Your task to perform on an android device: Add "beats solo 3" to the cart on target.com, then select checkout. Image 0: 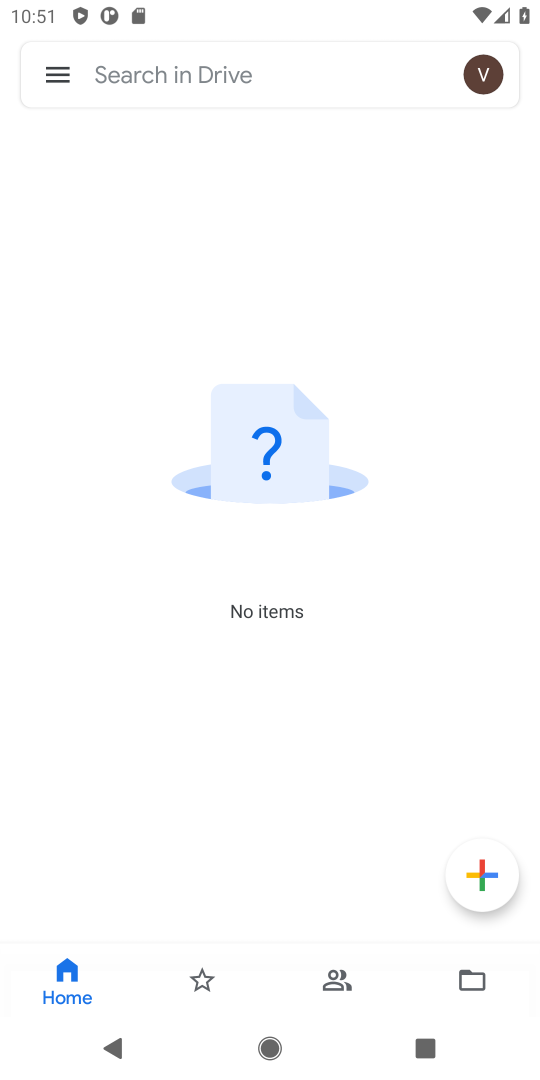
Step 0: press home button
Your task to perform on an android device: Add "beats solo 3" to the cart on target.com, then select checkout. Image 1: 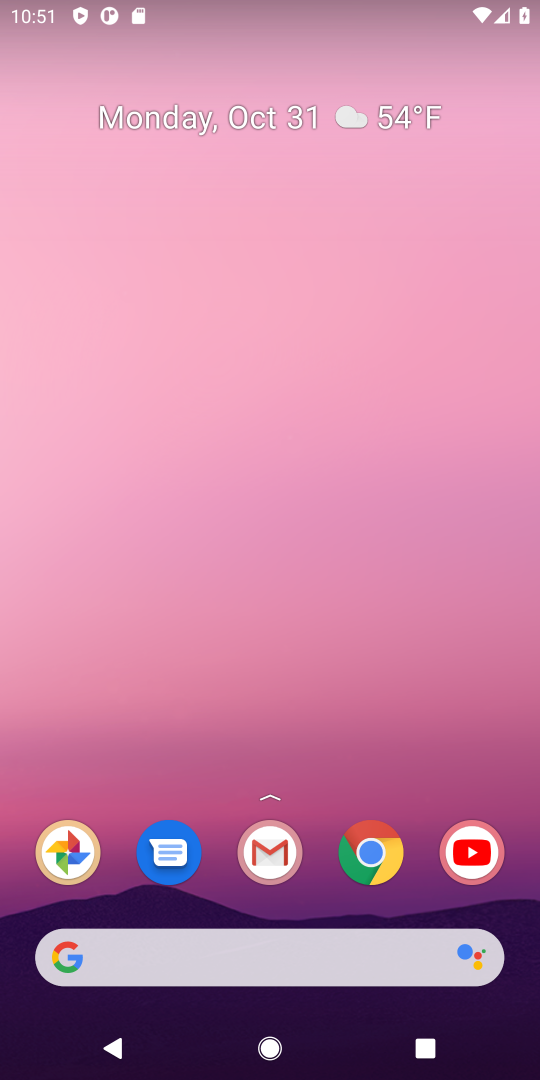
Step 1: click (387, 860)
Your task to perform on an android device: Add "beats solo 3" to the cart on target.com, then select checkout. Image 2: 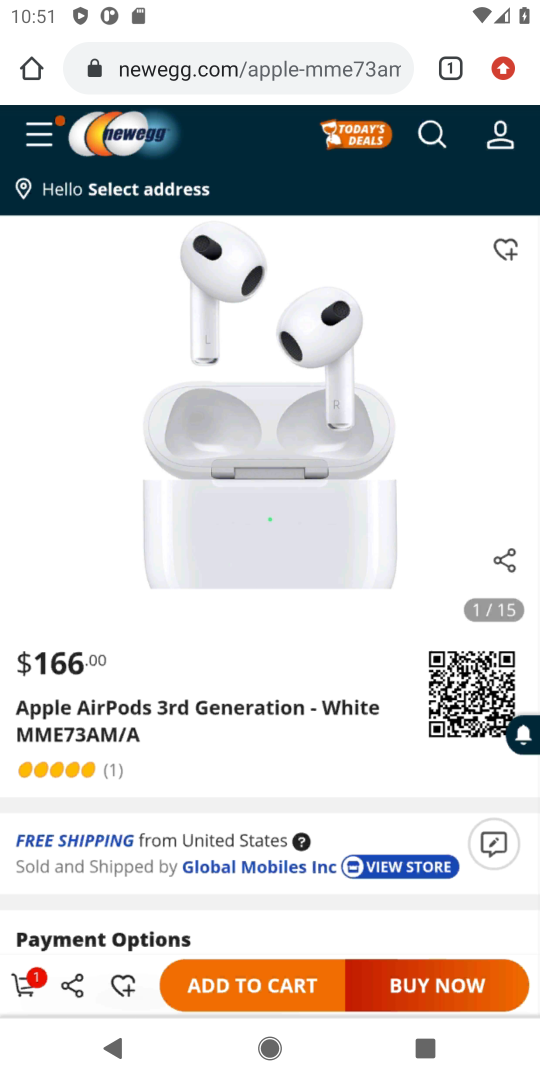
Step 2: click (264, 47)
Your task to perform on an android device: Add "beats solo 3" to the cart on target.com, then select checkout. Image 3: 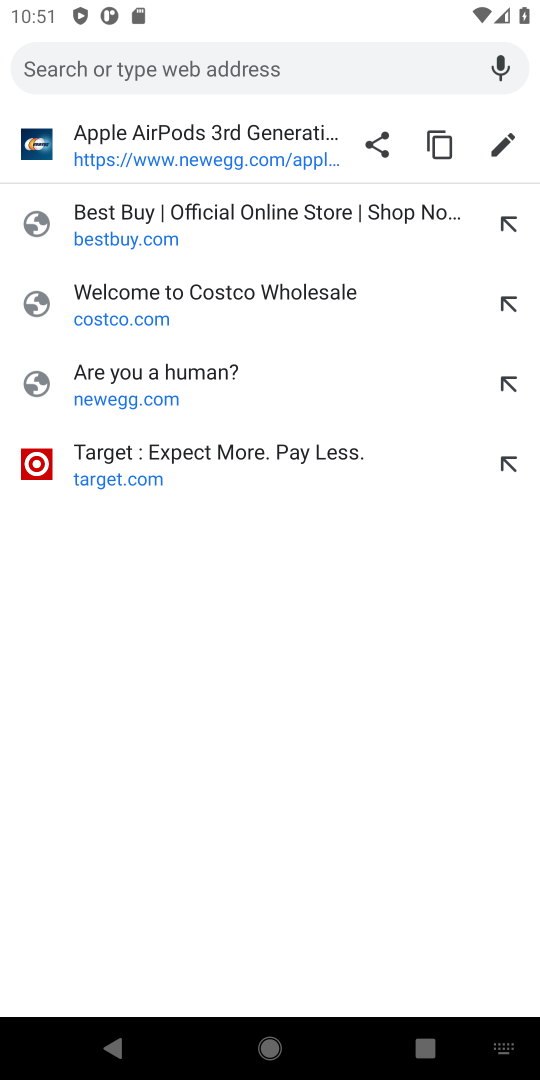
Step 3: type "target.com"
Your task to perform on an android device: Add "beats solo 3" to the cart on target.com, then select checkout. Image 4: 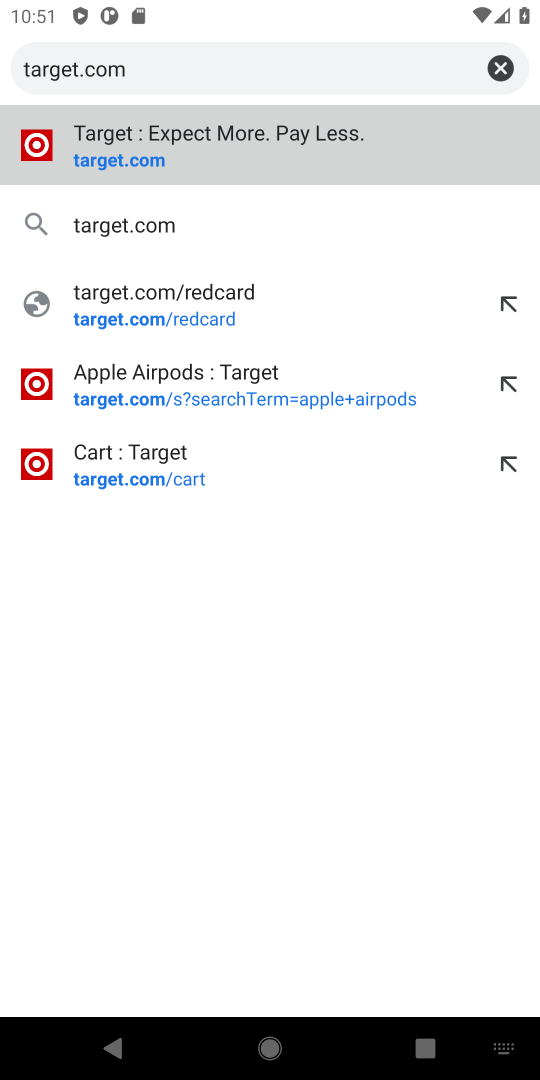
Step 4: type ""
Your task to perform on an android device: Add "beats solo 3" to the cart on target.com, then select checkout. Image 5: 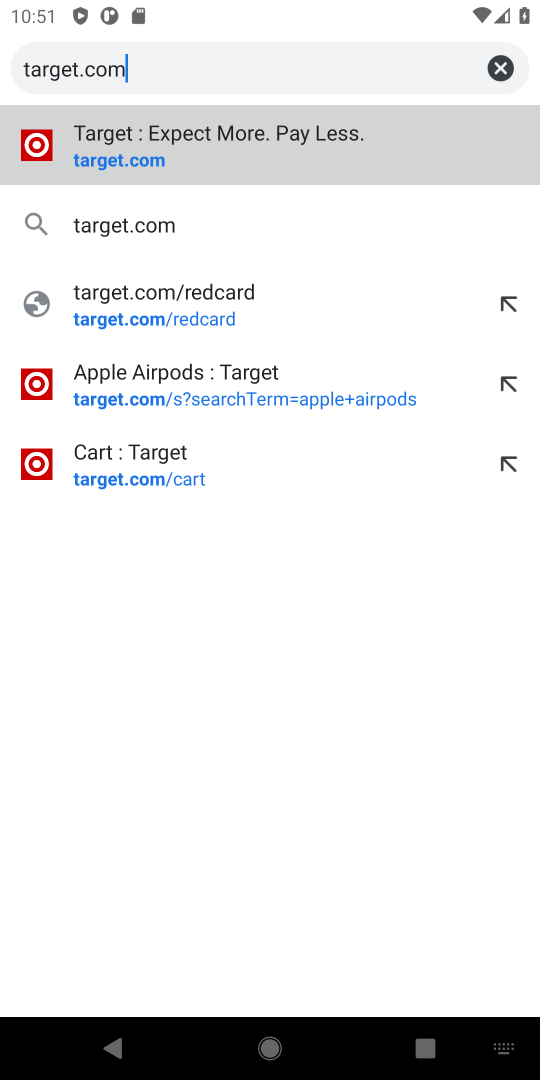
Step 5: press enter
Your task to perform on an android device: Add "beats solo 3" to the cart on target.com, then select checkout. Image 6: 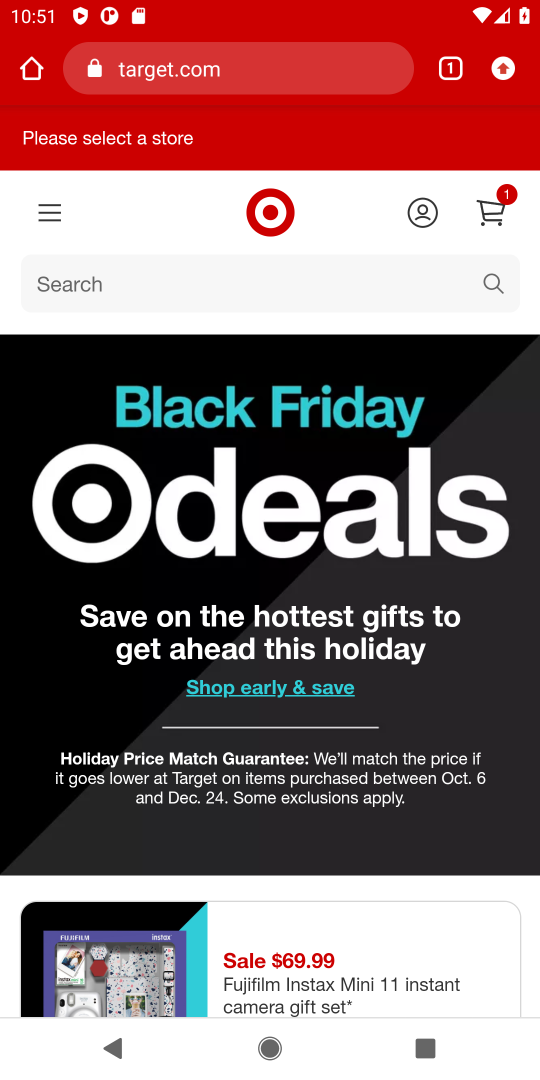
Step 6: click (230, 289)
Your task to perform on an android device: Add "beats solo 3" to the cart on target.com, then select checkout. Image 7: 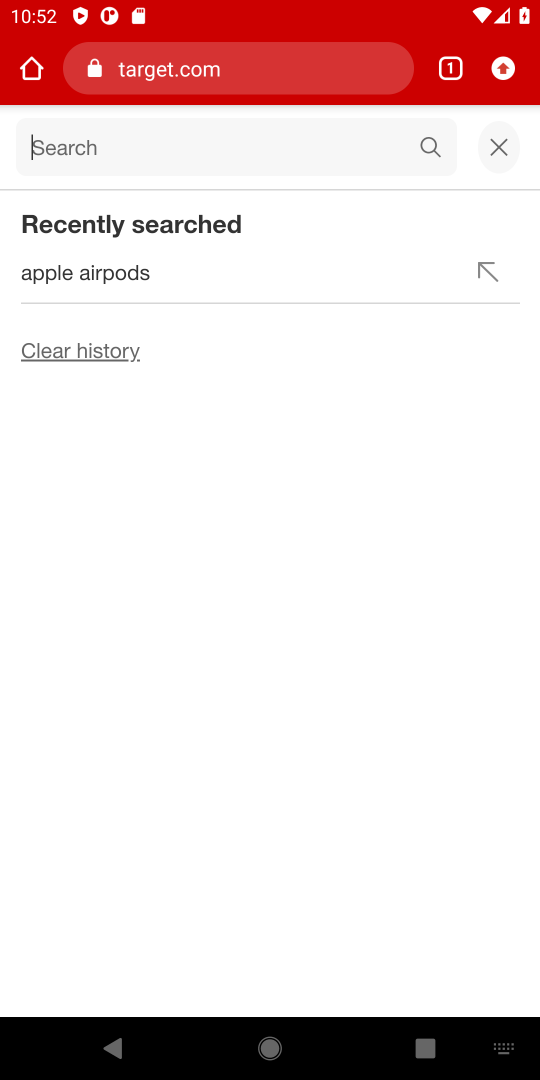
Step 7: type "beats solo 3"
Your task to perform on an android device: Add "beats solo 3" to the cart on target.com, then select checkout. Image 8: 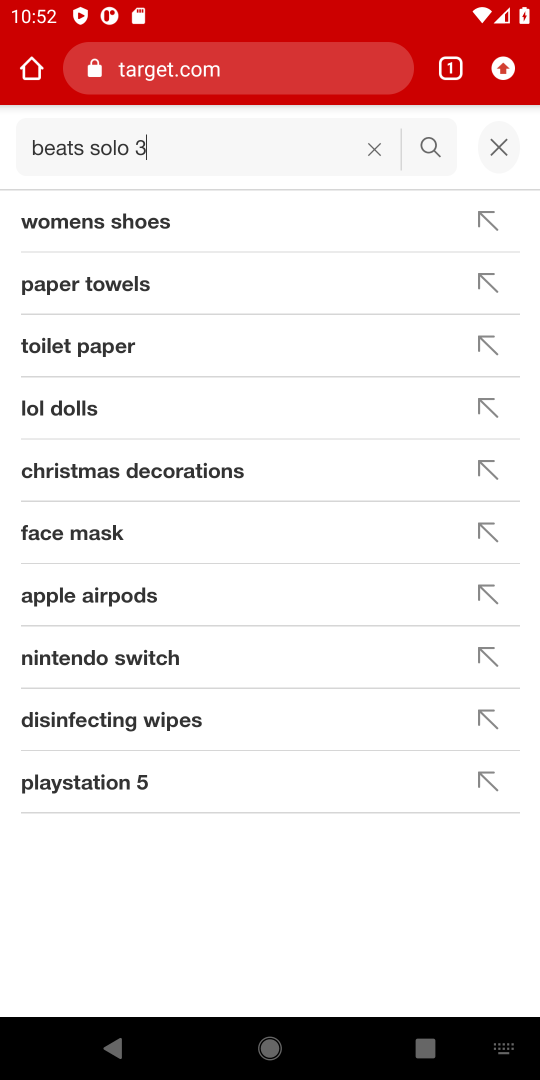
Step 8: type ""
Your task to perform on an android device: Add "beats solo 3" to the cart on target.com, then select checkout. Image 9: 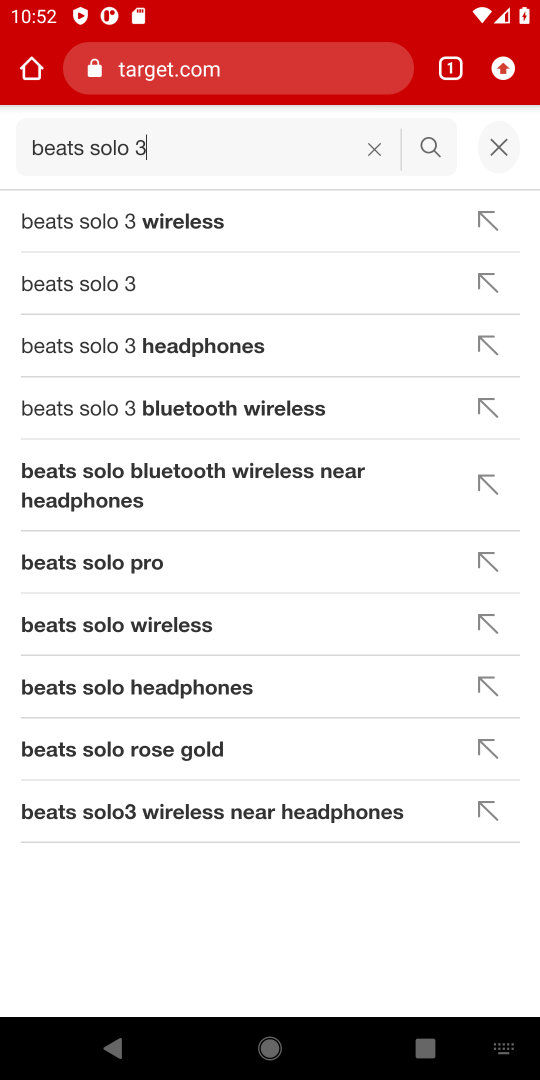
Step 9: press enter
Your task to perform on an android device: Add "beats solo 3" to the cart on target.com, then select checkout. Image 10: 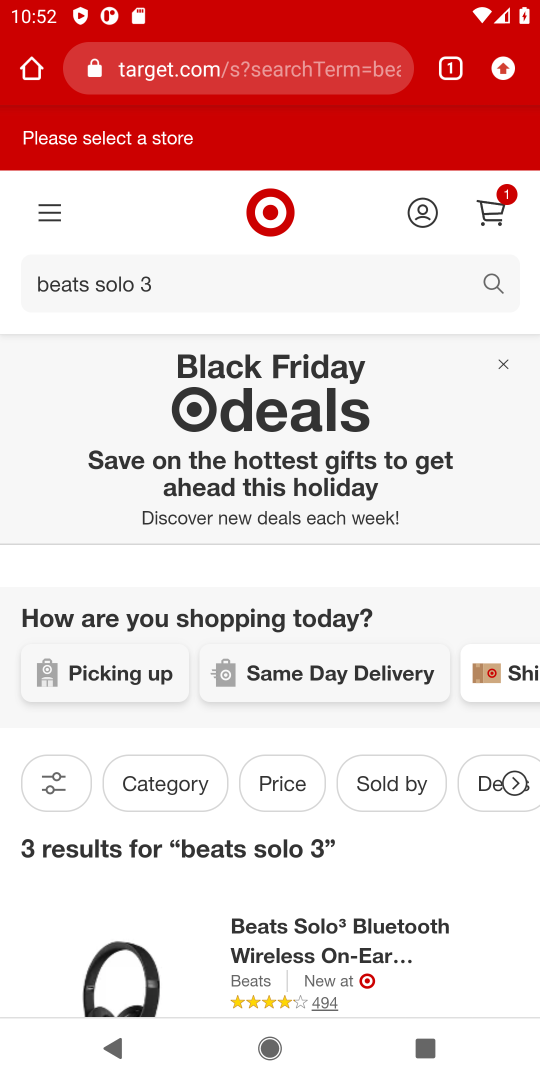
Step 10: drag from (394, 886) to (426, 514)
Your task to perform on an android device: Add "beats solo 3" to the cart on target.com, then select checkout. Image 11: 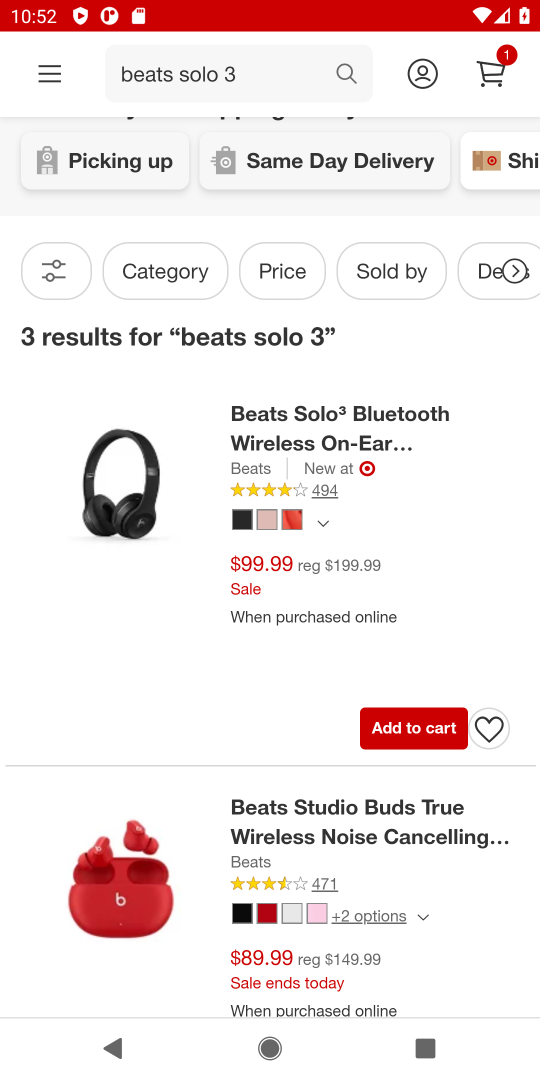
Step 11: click (311, 428)
Your task to perform on an android device: Add "beats solo 3" to the cart on target.com, then select checkout. Image 12: 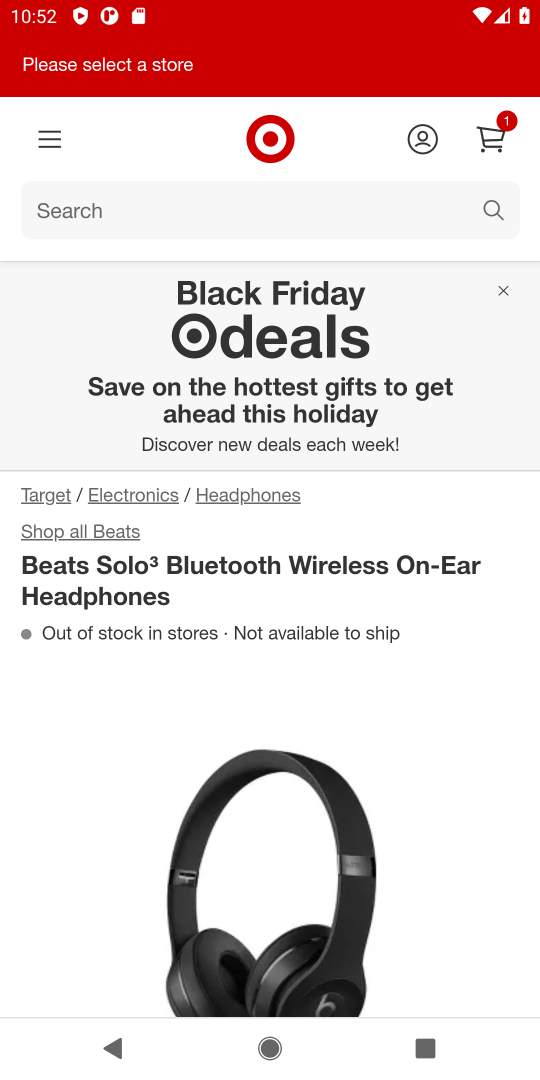
Step 12: drag from (356, 847) to (350, 298)
Your task to perform on an android device: Add "beats solo 3" to the cart on target.com, then select checkout. Image 13: 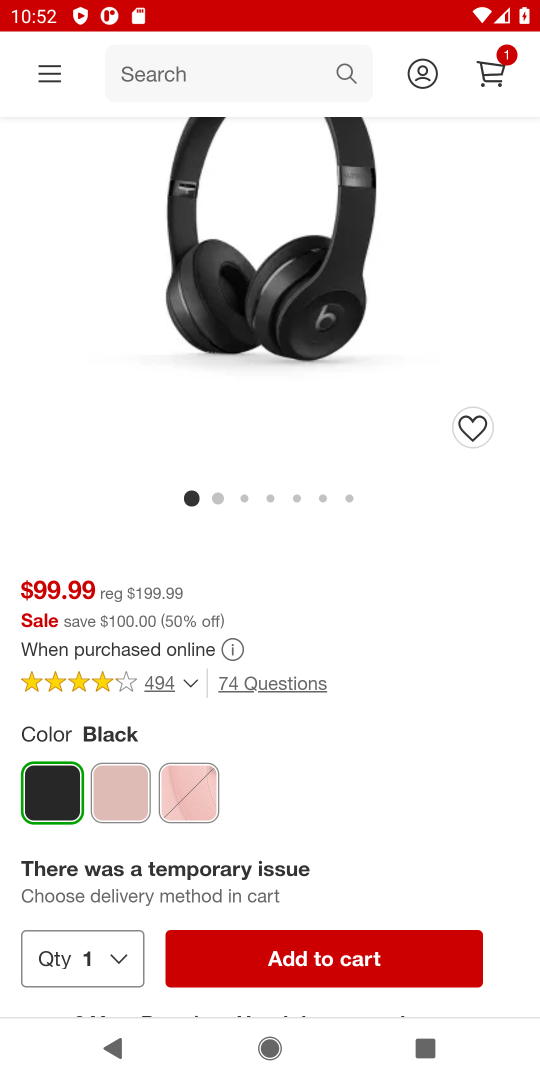
Step 13: click (381, 965)
Your task to perform on an android device: Add "beats solo 3" to the cart on target.com, then select checkout. Image 14: 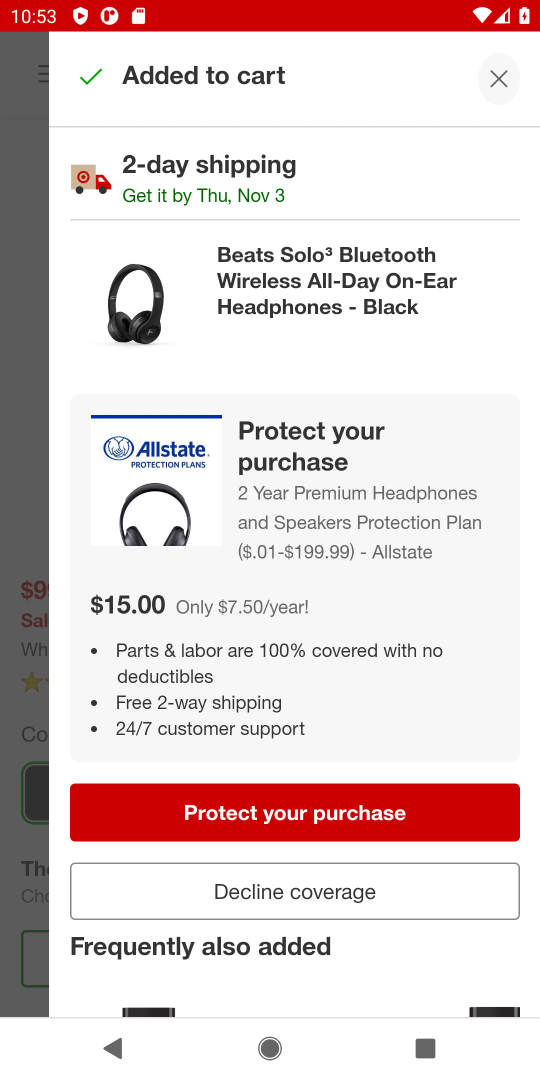
Step 14: click (376, 887)
Your task to perform on an android device: Add "beats solo 3" to the cart on target.com, then select checkout. Image 15: 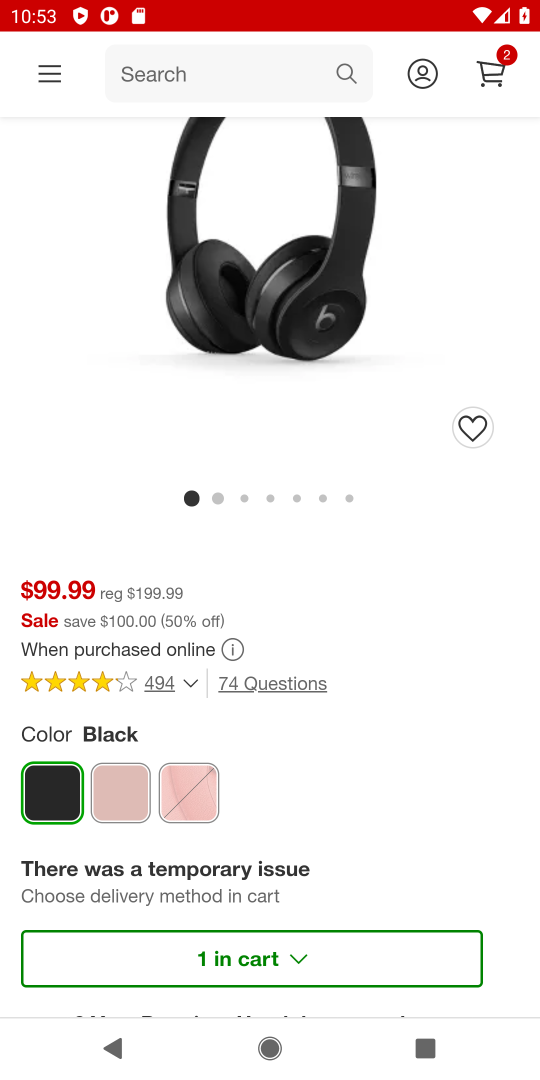
Step 15: click (344, 948)
Your task to perform on an android device: Add "beats solo 3" to the cart on target.com, then select checkout. Image 16: 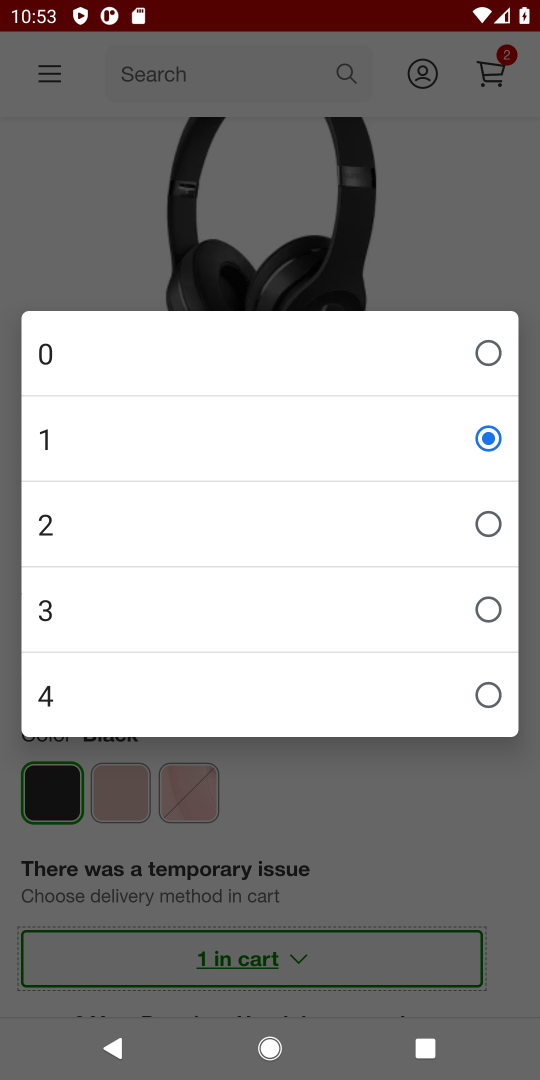
Step 16: click (426, 438)
Your task to perform on an android device: Add "beats solo 3" to the cart on target.com, then select checkout. Image 17: 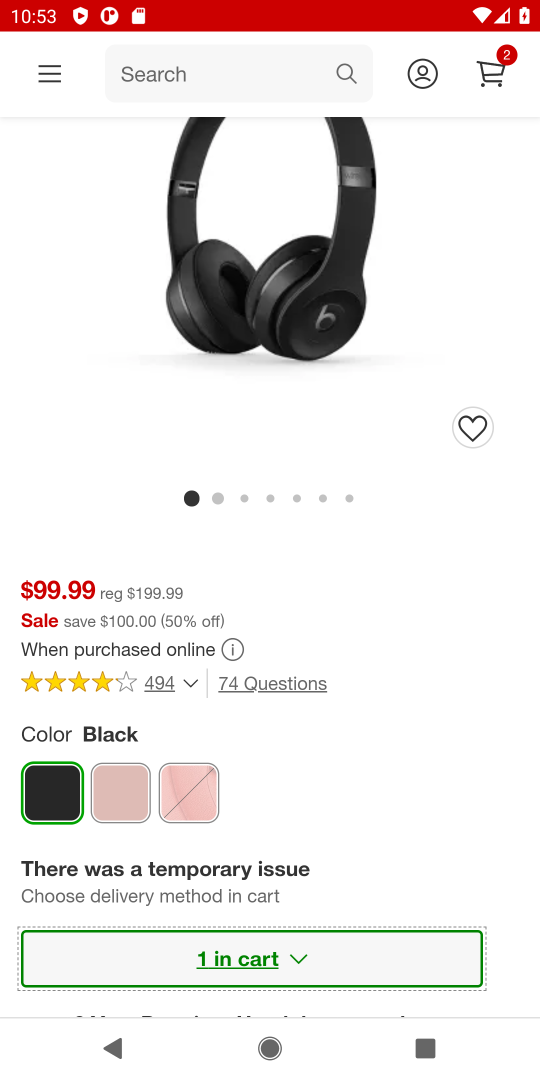
Step 17: drag from (376, 852) to (370, 798)
Your task to perform on an android device: Add "beats solo 3" to the cart on target.com, then select checkout. Image 18: 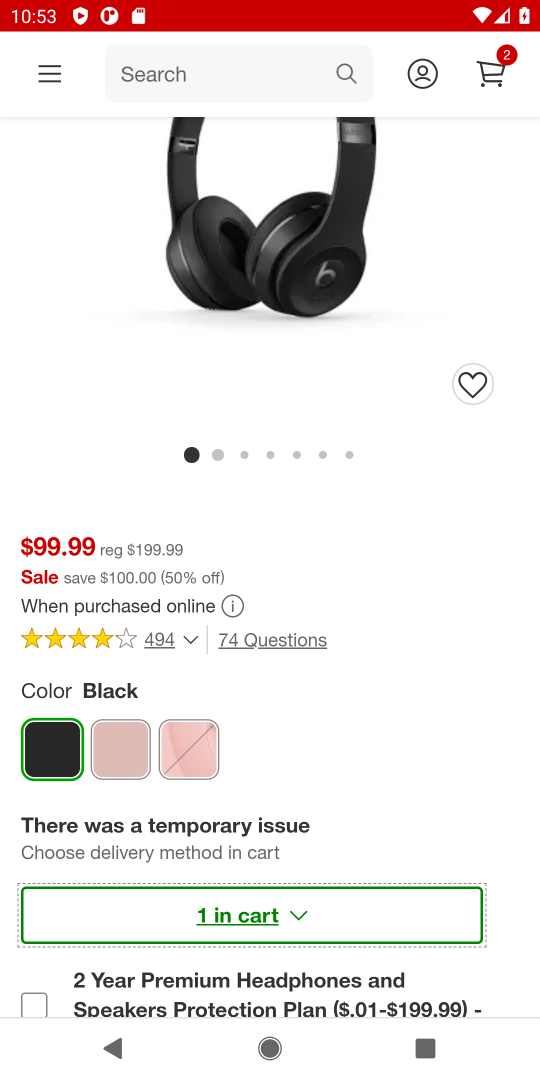
Step 18: click (492, 72)
Your task to perform on an android device: Add "beats solo 3" to the cart on target.com, then select checkout. Image 19: 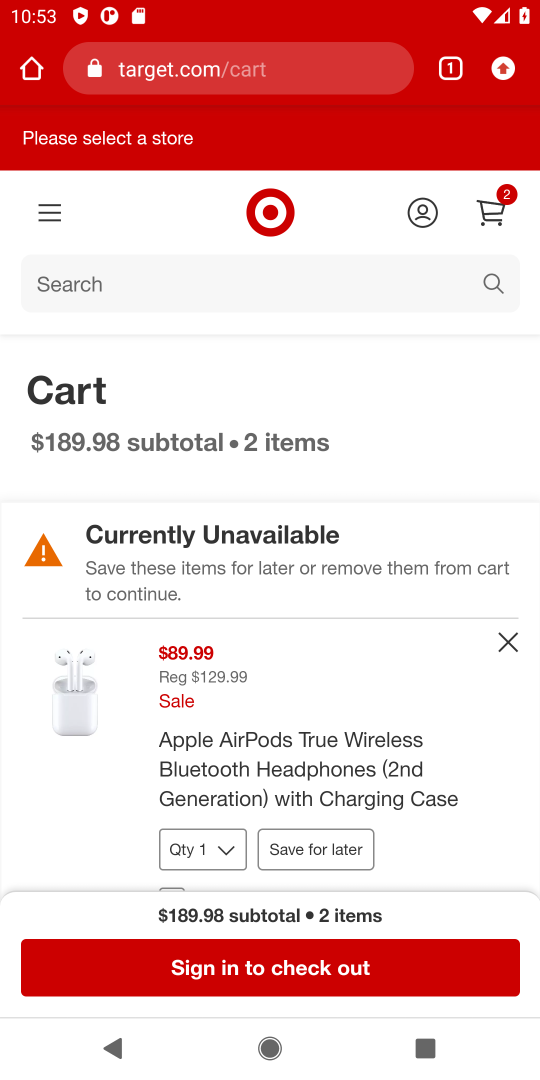
Step 19: drag from (465, 818) to (469, 645)
Your task to perform on an android device: Add "beats solo 3" to the cart on target.com, then select checkout. Image 20: 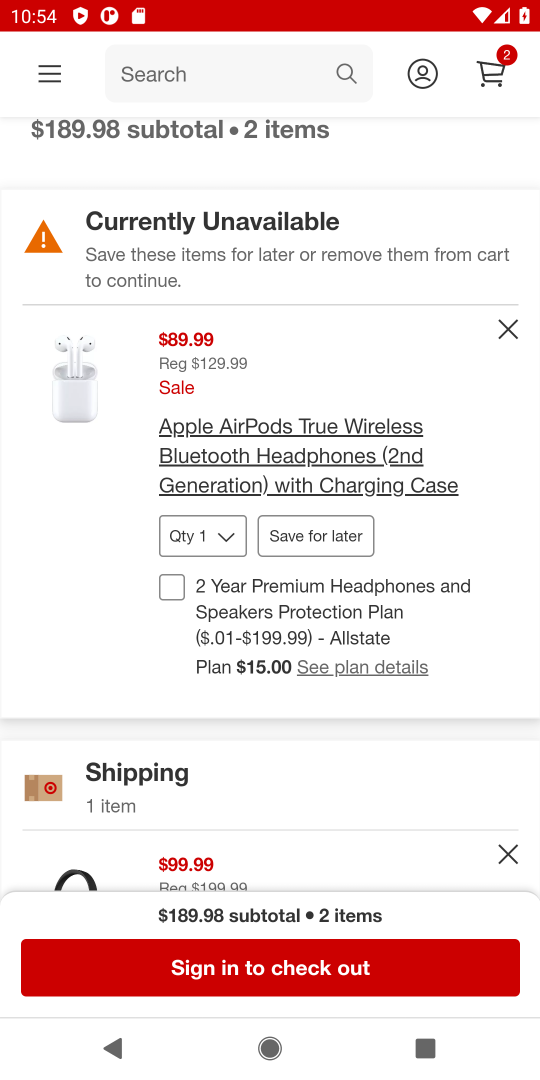
Step 20: click (392, 976)
Your task to perform on an android device: Add "beats solo 3" to the cart on target.com, then select checkout. Image 21: 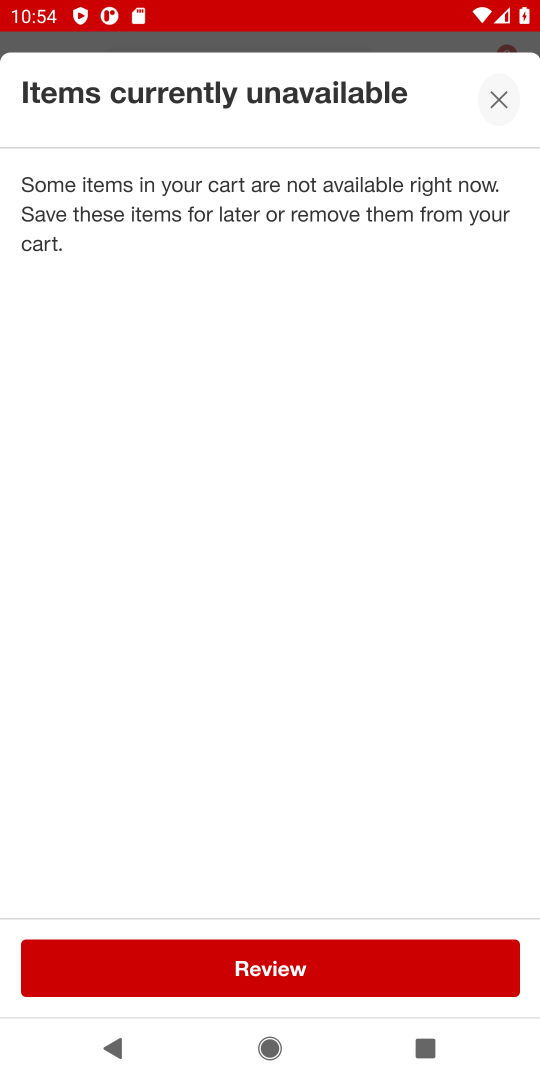
Step 21: task complete